Your task to perform on an android device: check google app version Image 0: 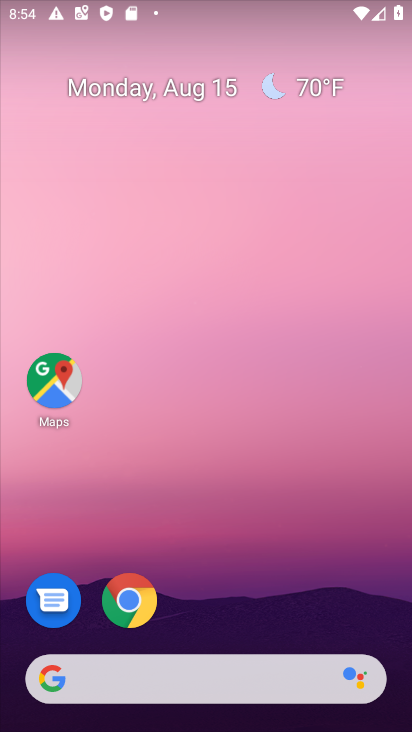
Step 0: drag from (229, 645) to (224, 144)
Your task to perform on an android device: check google app version Image 1: 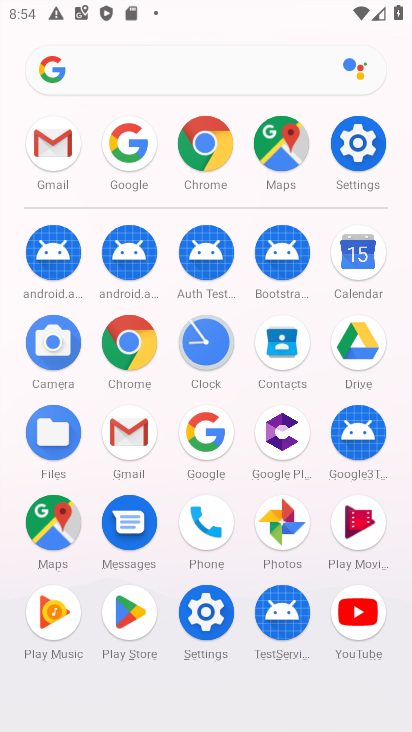
Step 1: click (208, 433)
Your task to perform on an android device: check google app version Image 2: 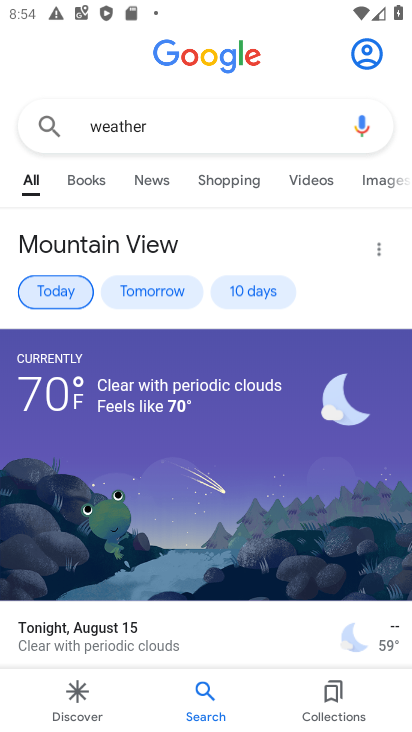
Step 2: click (365, 50)
Your task to perform on an android device: check google app version Image 3: 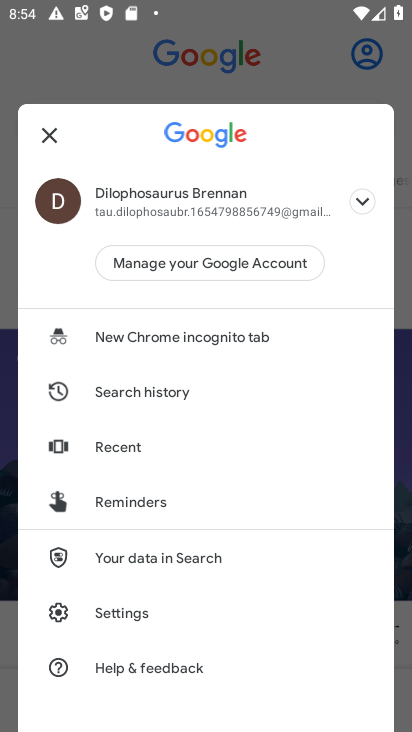
Step 3: click (117, 609)
Your task to perform on an android device: check google app version Image 4: 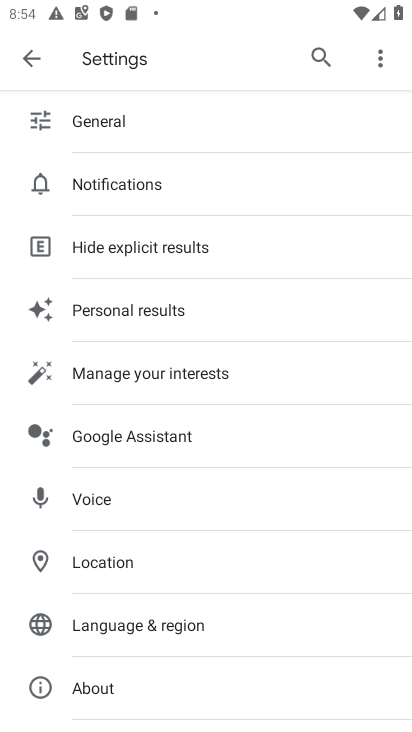
Step 4: click (93, 688)
Your task to perform on an android device: check google app version Image 5: 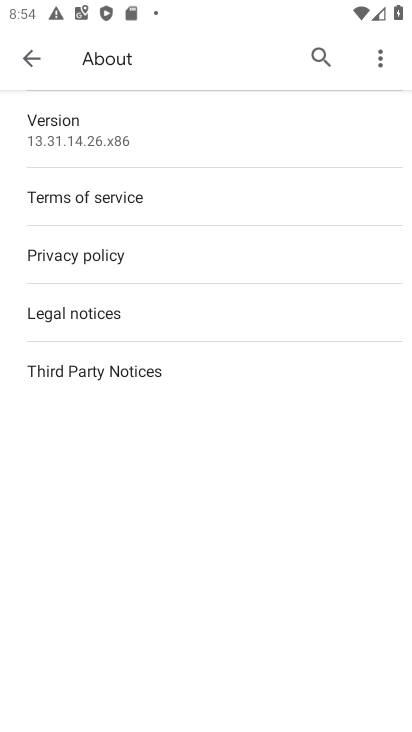
Step 5: click (44, 125)
Your task to perform on an android device: check google app version Image 6: 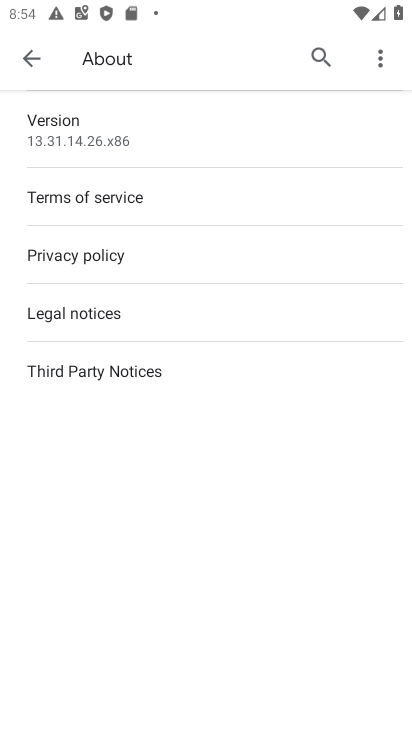
Step 6: task complete